Your task to perform on an android device: turn off priority inbox in the gmail app Image 0: 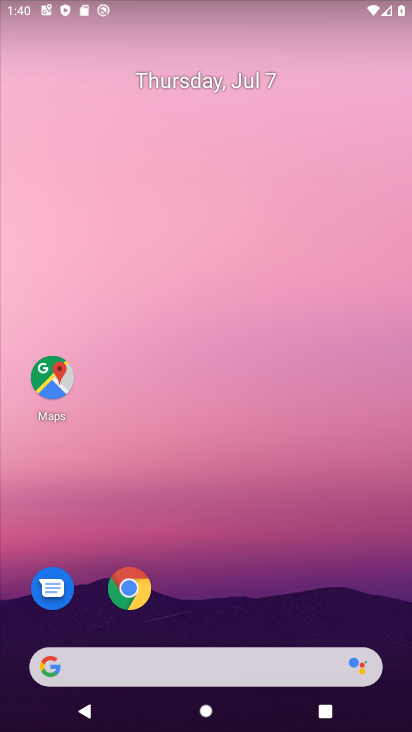
Step 0: drag from (229, 535) to (273, 61)
Your task to perform on an android device: turn off priority inbox in the gmail app Image 1: 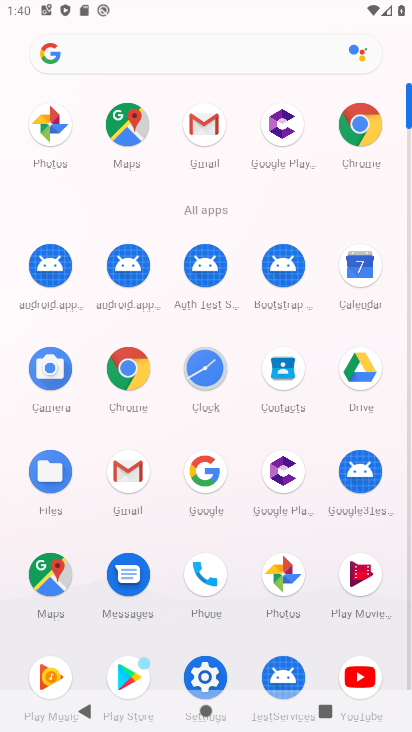
Step 1: click (200, 121)
Your task to perform on an android device: turn off priority inbox in the gmail app Image 2: 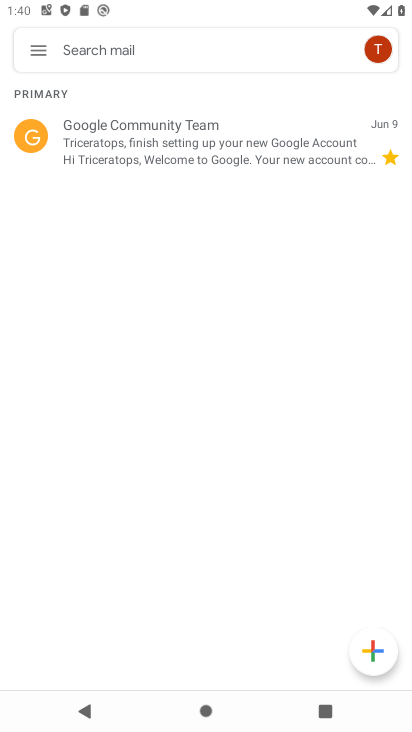
Step 2: click (35, 48)
Your task to perform on an android device: turn off priority inbox in the gmail app Image 3: 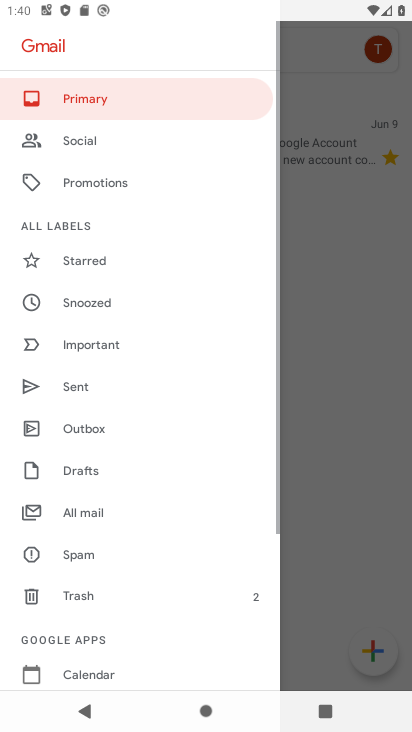
Step 3: drag from (129, 645) to (210, 80)
Your task to perform on an android device: turn off priority inbox in the gmail app Image 4: 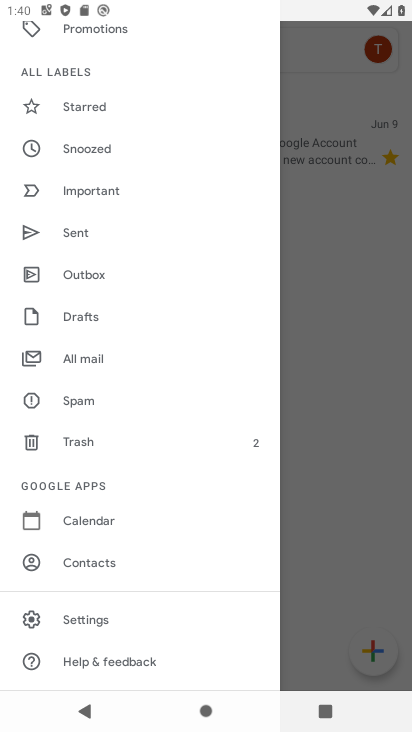
Step 4: click (90, 608)
Your task to perform on an android device: turn off priority inbox in the gmail app Image 5: 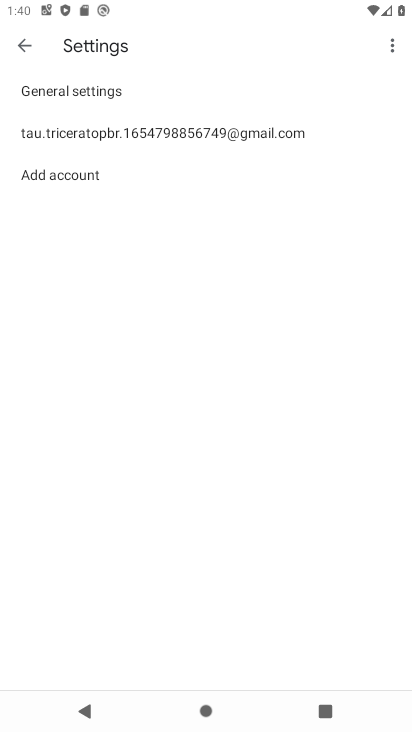
Step 5: click (104, 128)
Your task to perform on an android device: turn off priority inbox in the gmail app Image 6: 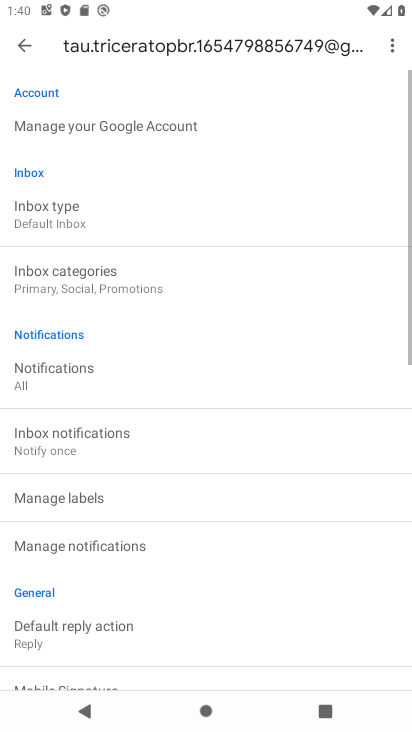
Step 6: click (40, 219)
Your task to perform on an android device: turn off priority inbox in the gmail app Image 7: 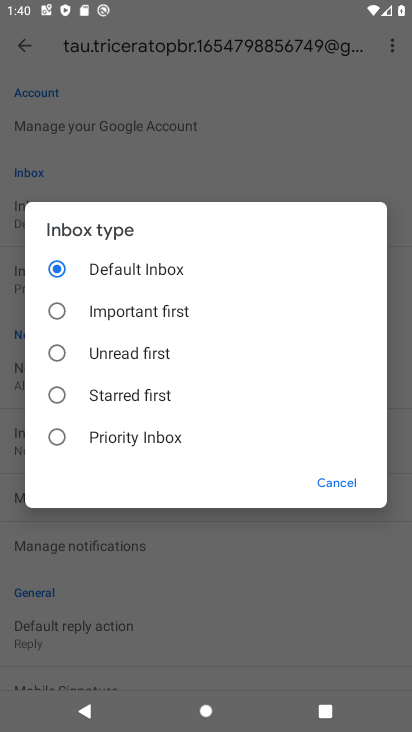
Step 7: task complete